Your task to perform on an android device: Open display settings Image 0: 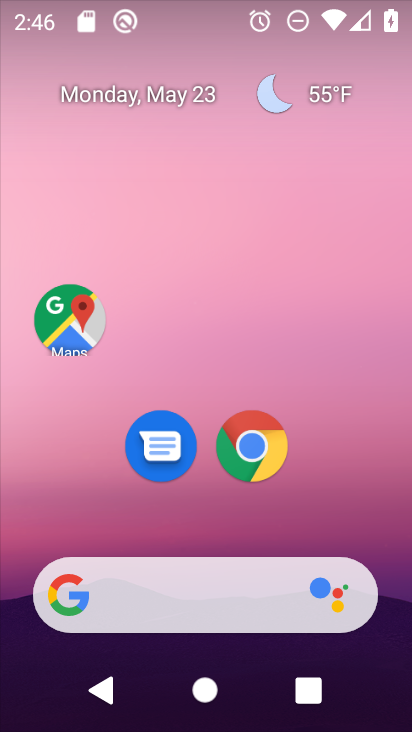
Step 0: drag from (199, 529) to (212, 159)
Your task to perform on an android device: Open display settings Image 1: 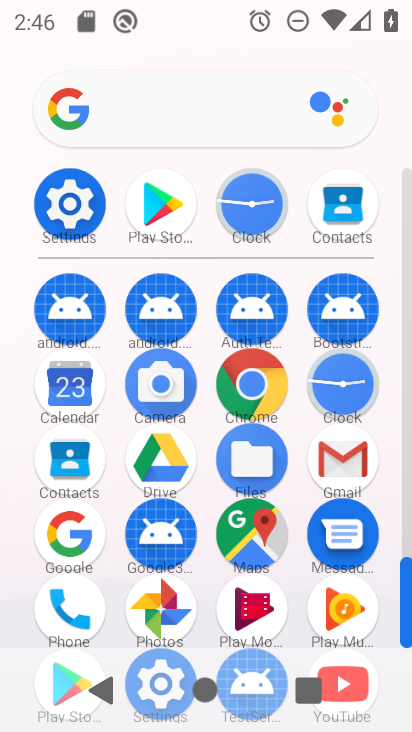
Step 1: click (94, 198)
Your task to perform on an android device: Open display settings Image 2: 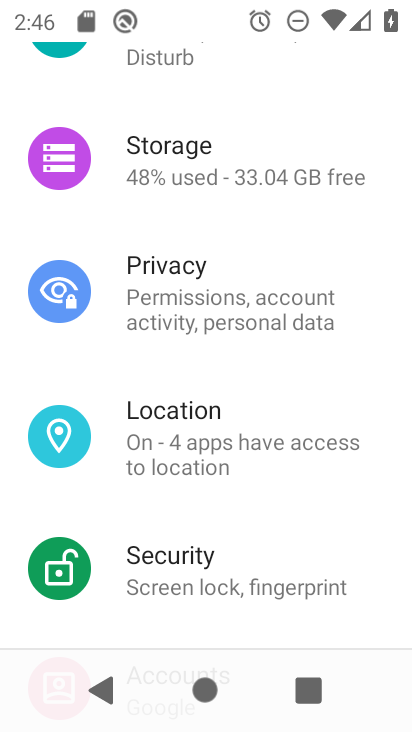
Step 2: drag from (225, 223) to (253, 585)
Your task to perform on an android device: Open display settings Image 3: 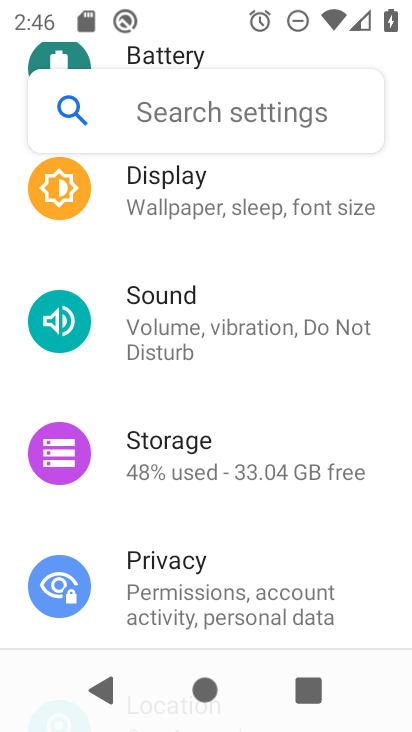
Step 3: click (200, 206)
Your task to perform on an android device: Open display settings Image 4: 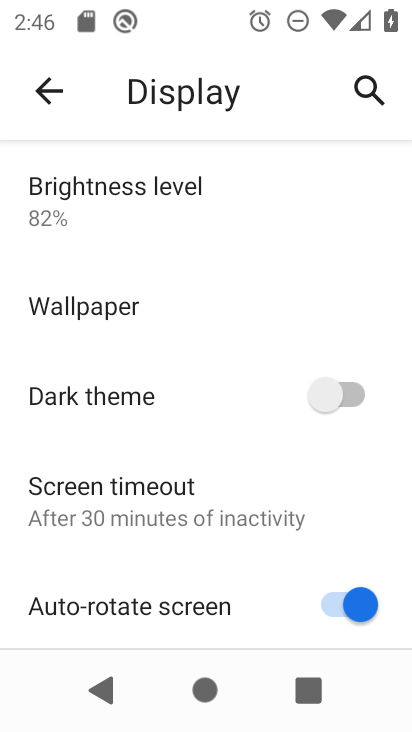
Step 4: task complete